Your task to perform on an android device: Show me popular games on the Play Store Image 0: 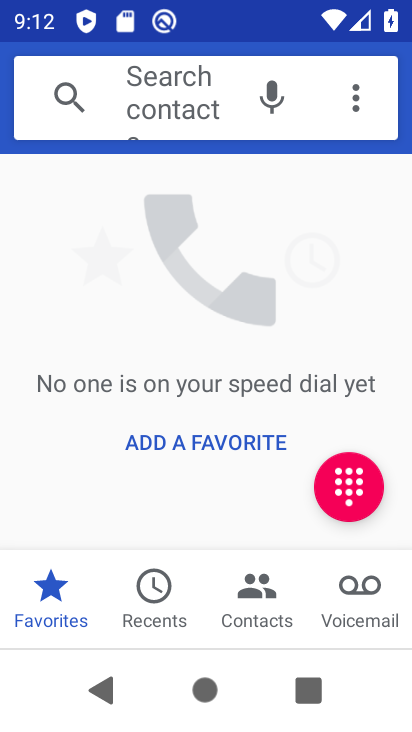
Step 0: press home button
Your task to perform on an android device: Show me popular games on the Play Store Image 1: 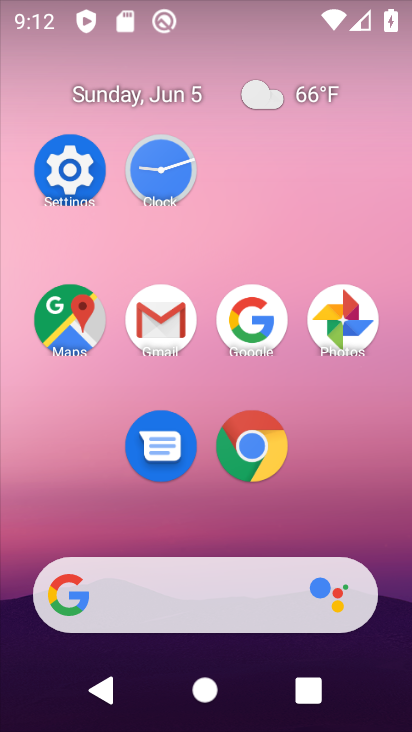
Step 1: drag from (343, 548) to (333, 186)
Your task to perform on an android device: Show me popular games on the Play Store Image 2: 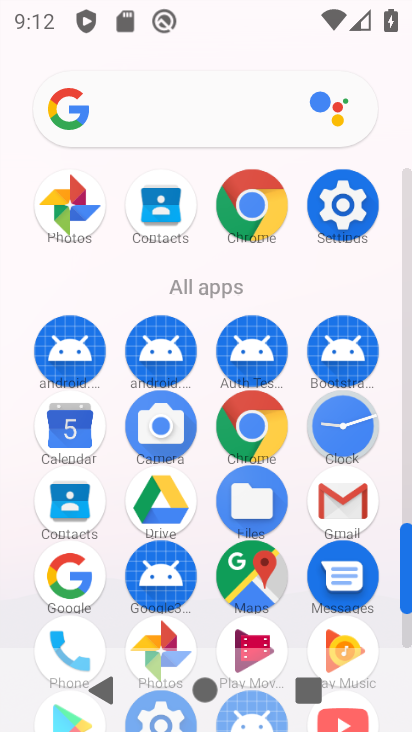
Step 2: drag from (220, 547) to (226, 292)
Your task to perform on an android device: Show me popular games on the Play Store Image 3: 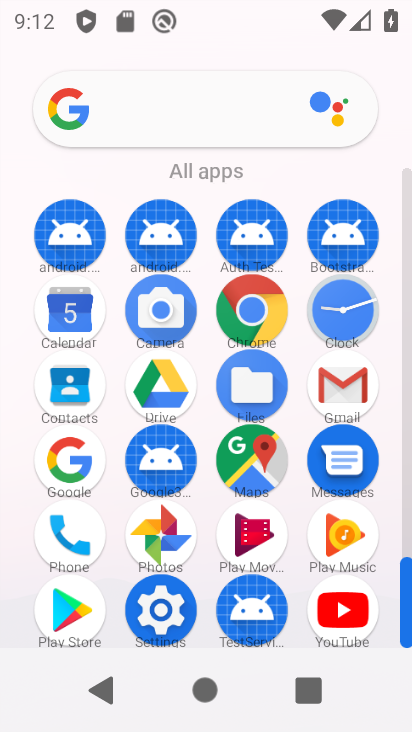
Step 3: drag from (77, 615) to (71, 467)
Your task to perform on an android device: Show me popular games on the Play Store Image 4: 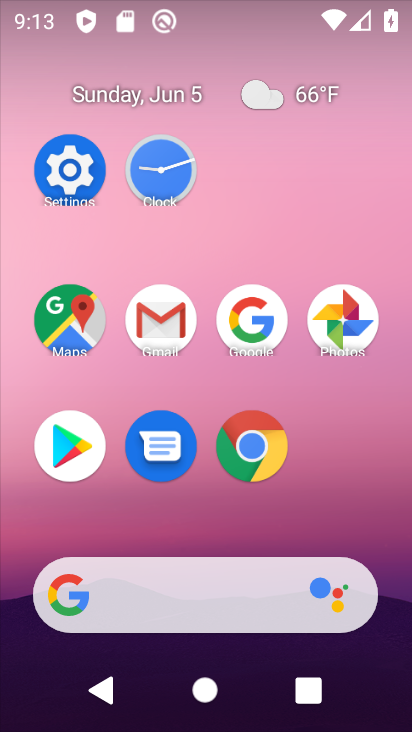
Step 4: click (47, 447)
Your task to perform on an android device: Show me popular games on the Play Store Image 5: 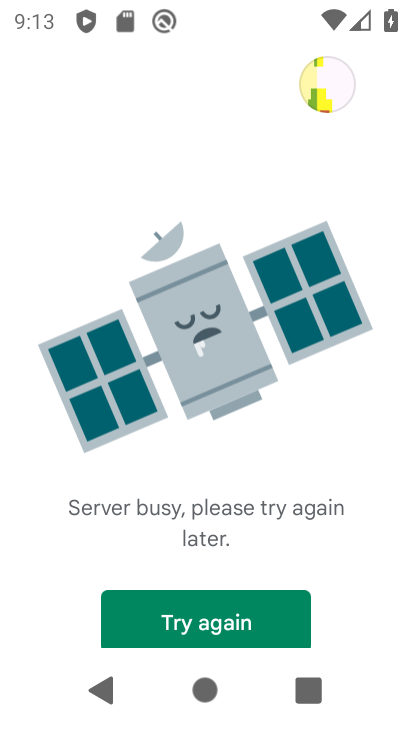
Step 5: click (220, 609)
Your task to perform on an android device: Show me popular games on the Play Store Image 6: 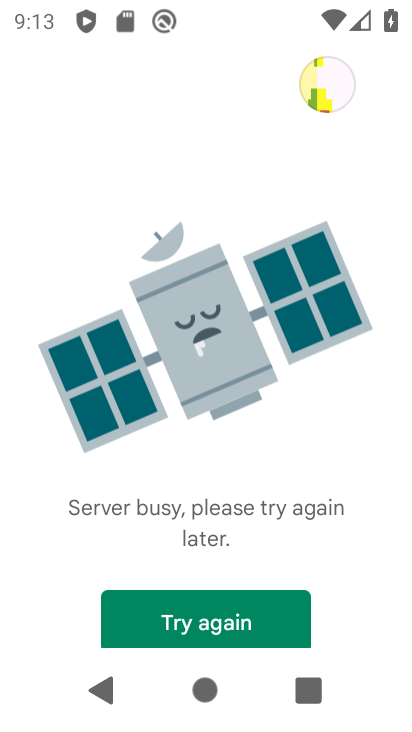
Step 6: task complete